Your task to perform on an android device: Open Google Image 0: 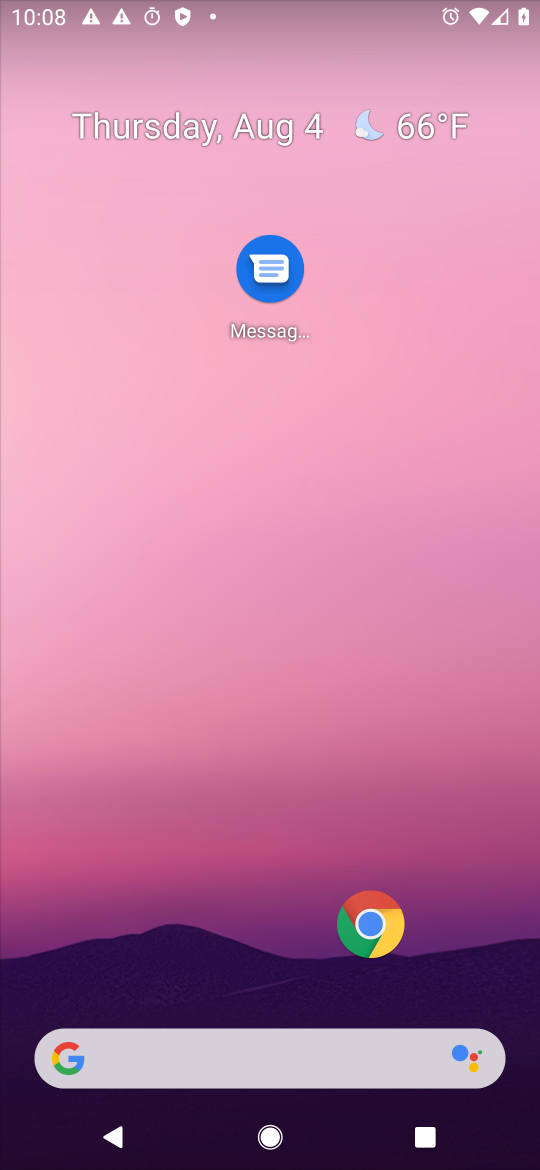
Step 0: drag from (237, 836) to (392, 206)
Your task to perform on an android device: Open Google Image 1: 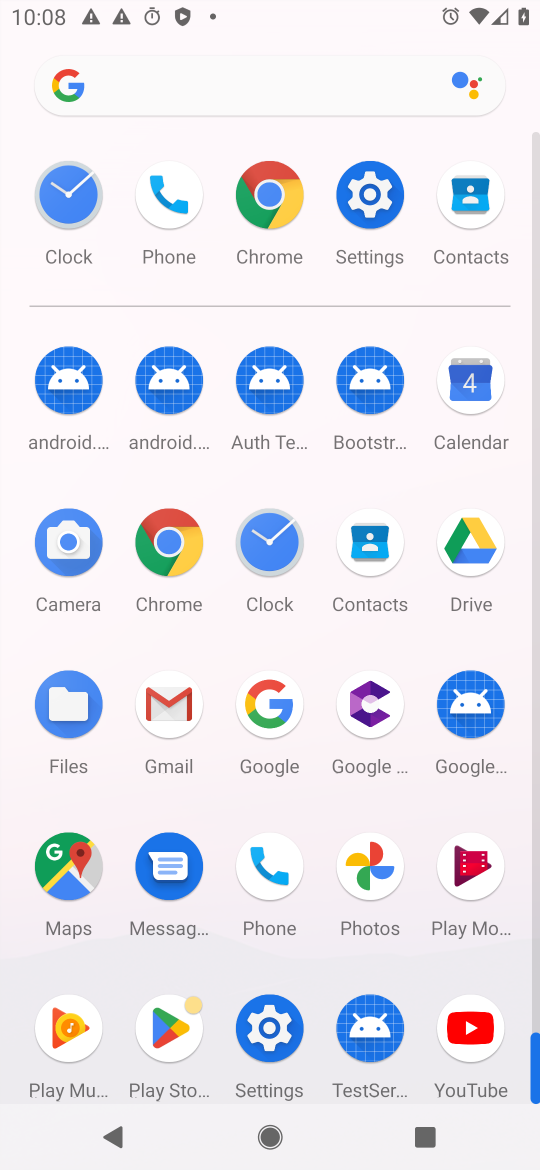
Step 1: click (272, 701)
Your task to perform on an android device: Open Google Image 2: 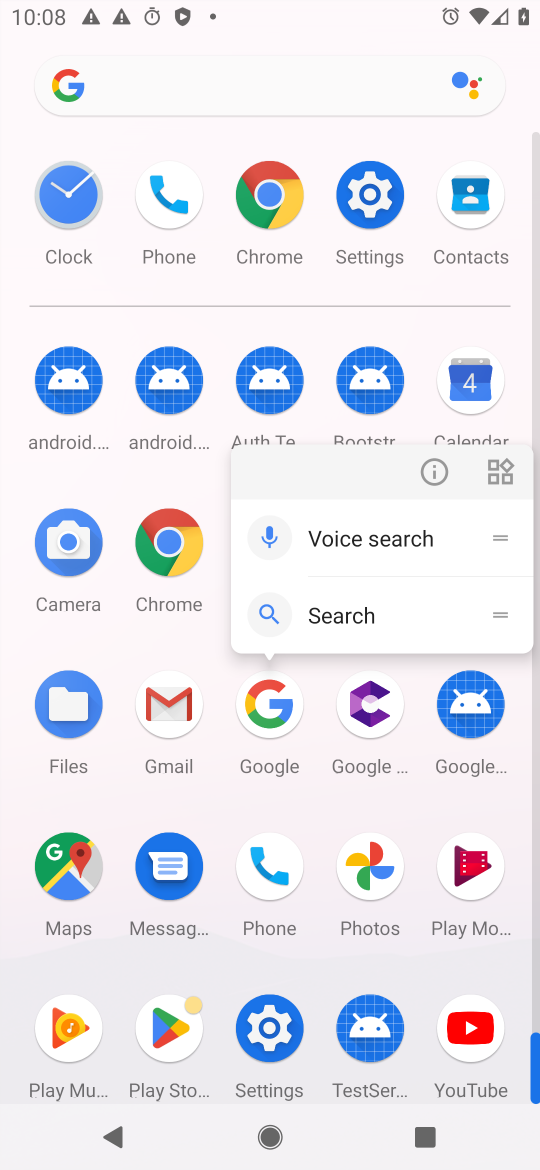
Step 2: click (435, 463)
Your task to perform on an android device: Open Google Image 3: 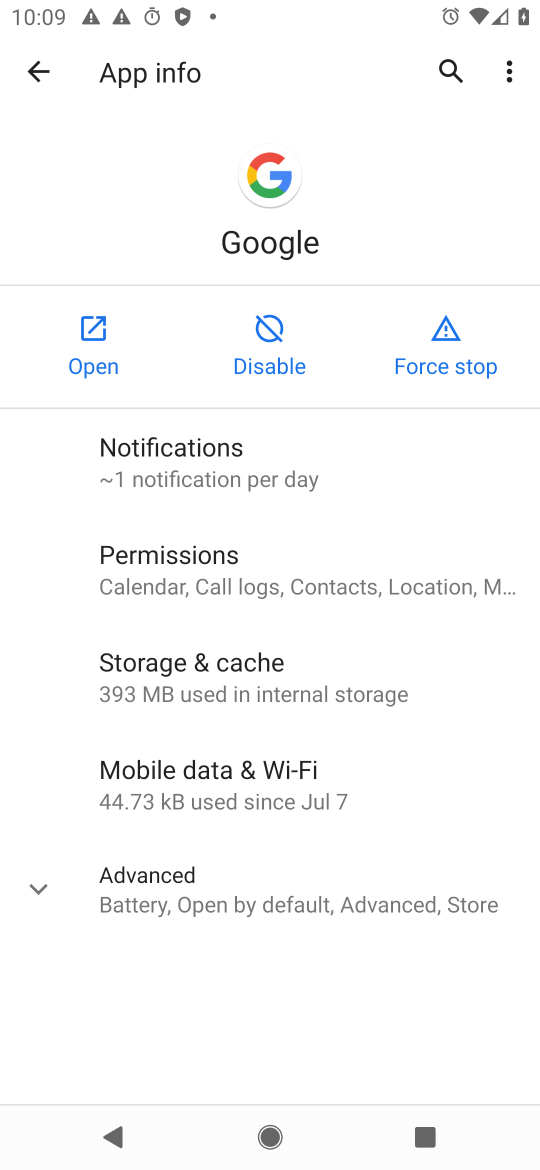
Step 3: click (92, 311)
Your task to perform on an android device: Open Google Image 4: 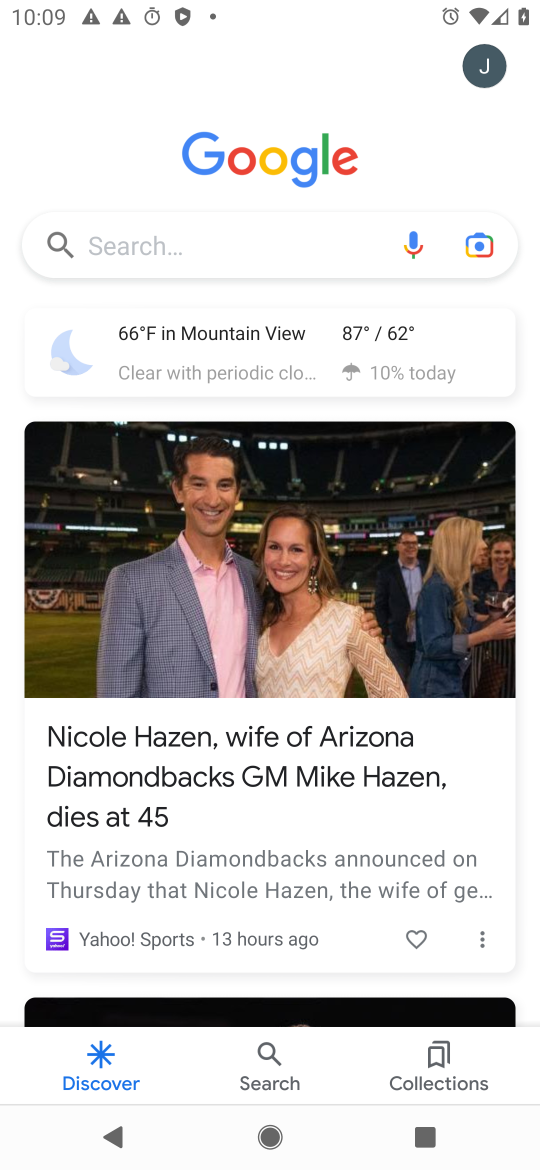
Step 4: task complete